Your task to perform on an android device: Search for pizza restaurants on Maps Image 0: 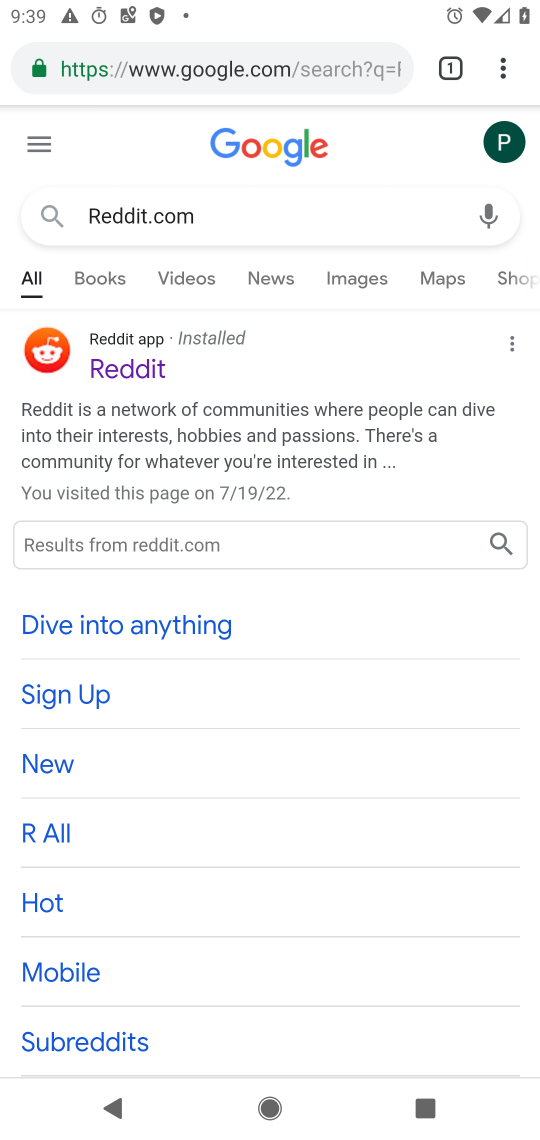
Step 0: press home button
Your task to perform on an android device: Search for pizza restaurants on Maps Image 1: 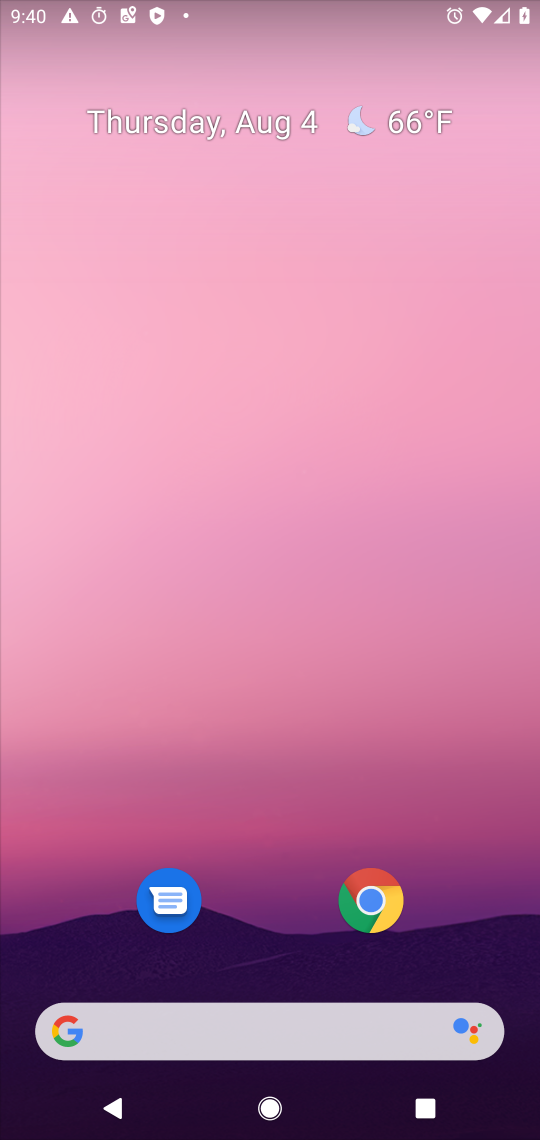
Step 1: drag from (229, 1042) to (279, 162)
Your task to perform on an android device: Search for pizza restaurants on Maps Image 2: 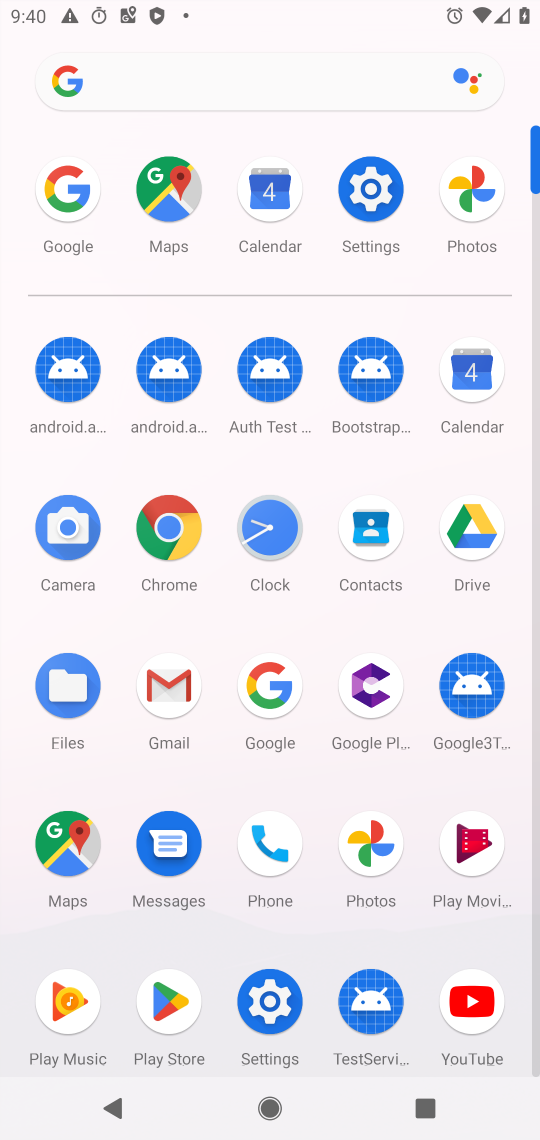
Step 2: click (167, 195)
Your task to perform on an android device: Search for pizza restaurants on Maps Image 3: 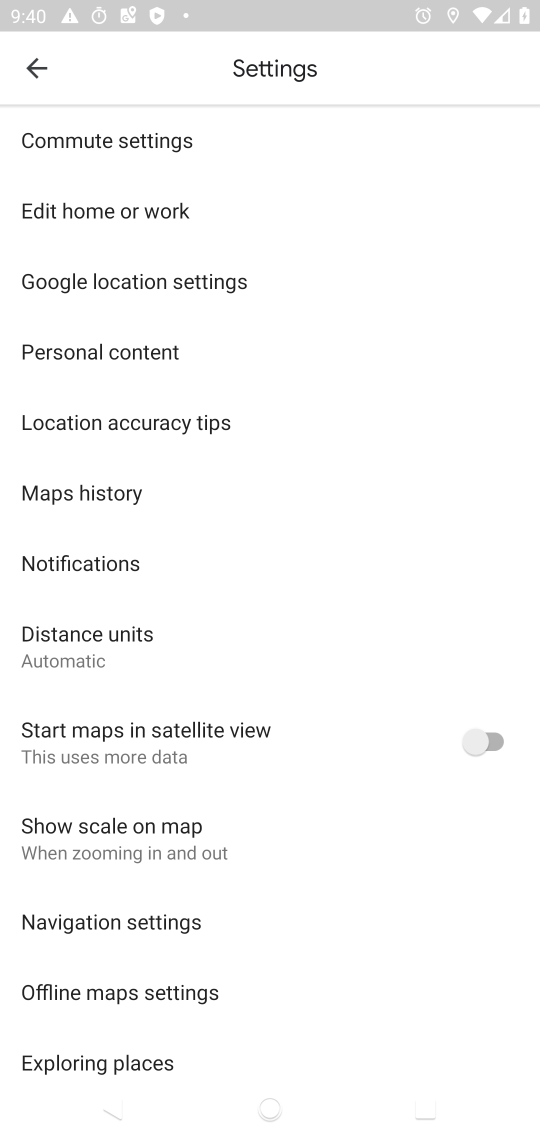
Step 3: press back button
Your task to perform on an android device: Search for pizza restaurants on Maps Image 4: 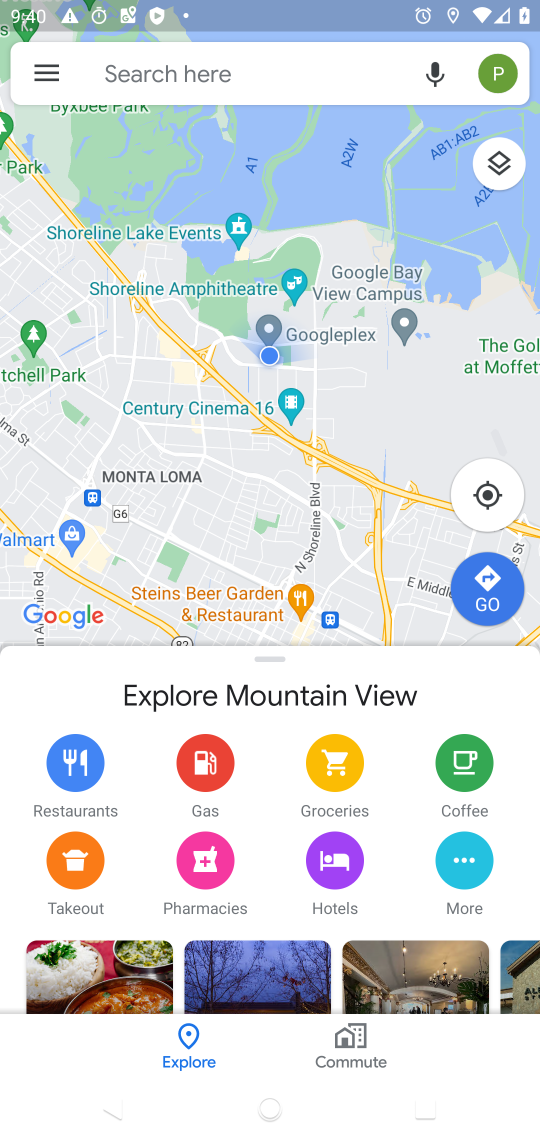
Step 4: click (255, 50)
Your task to perform on an android device: Search for pizza restaurants on Maps Image 5: 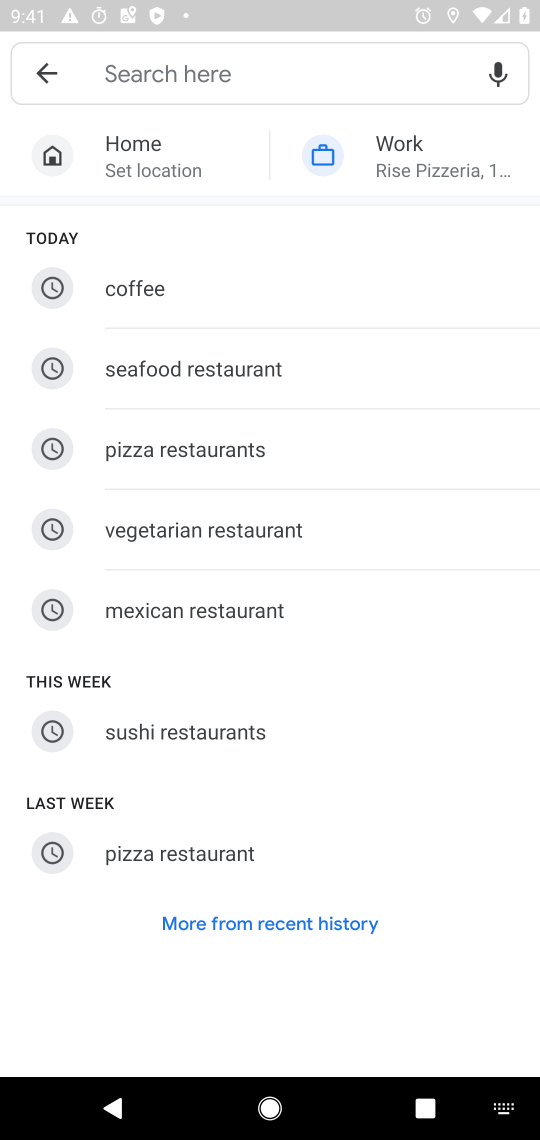
Step 5: type "pizza restaurants"
Your task to perform on an android device: Search for pizza restaurants on Maps Image 6: 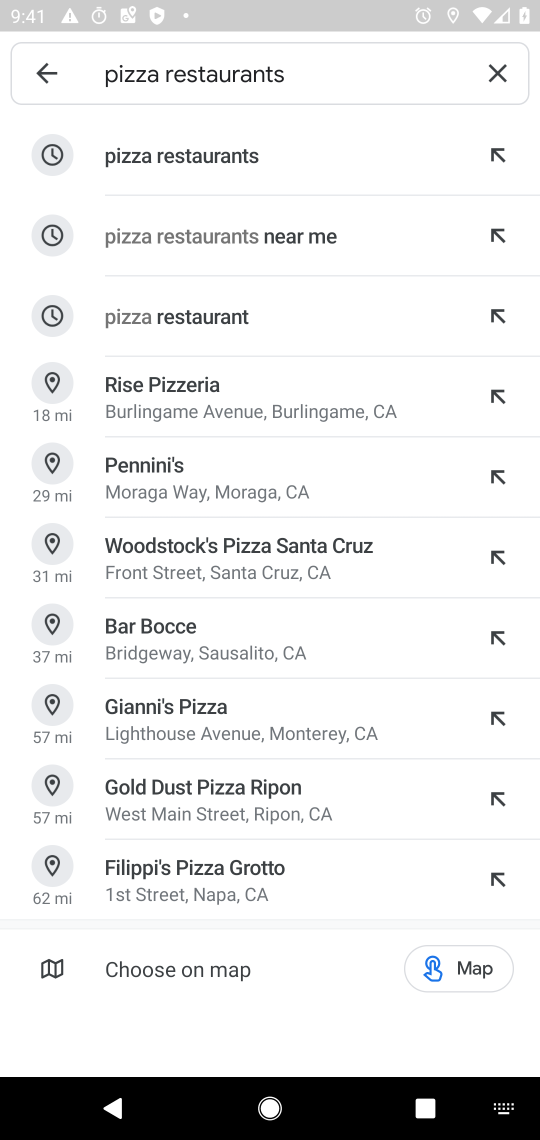
Step 6: click (238, 146)
Your task to perform on an android device: Search for pizza restaurants on Maps Image 7: 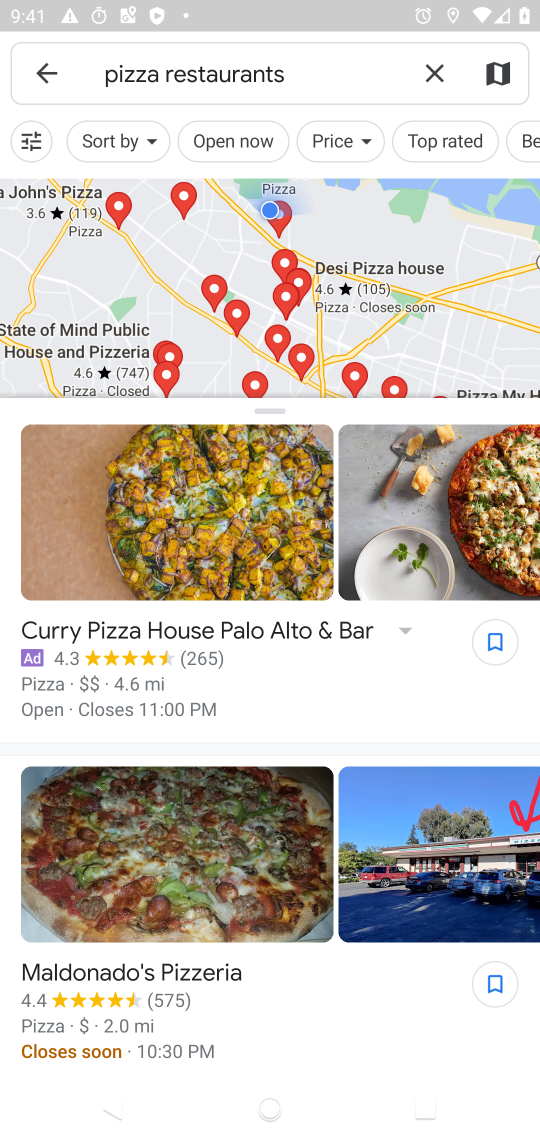
Step 7: task complete